Your task to perform on an android device: move a message to another label in the gmail app Image 0: 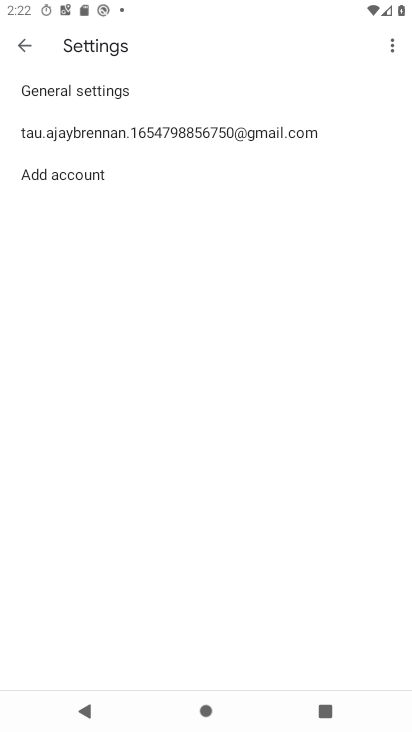
Step 0: press home button
Your task to perform on an android device: move a message to another label in the gmail app Image 1: 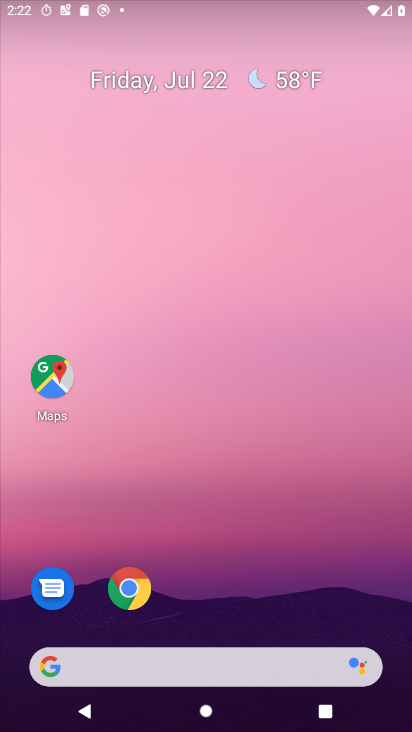
Step 1: drag from (209, 659) to (289, 76)
Your task to perform on an android device: move a message to another label in the gmail app Image 2: 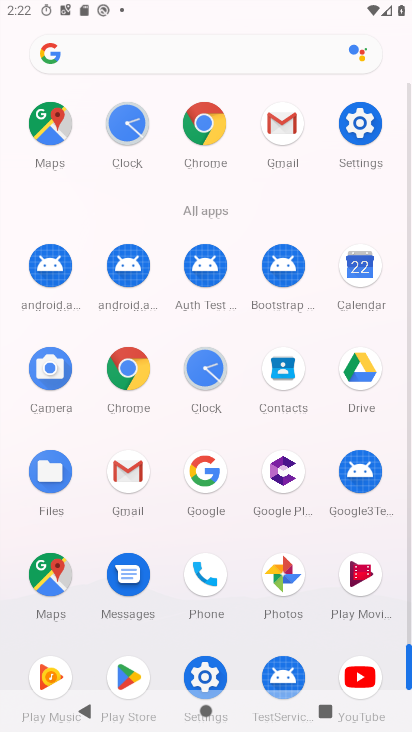
Step 2: click (287, 139)
Your task to perform on an android device: move a message to another label in the gmail app Image 3: 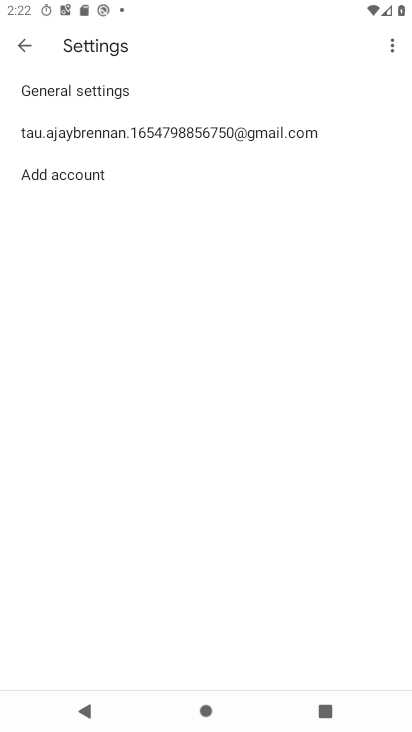
Step 3: click (115, 131)
Your task to perform on an android device: move a message to another label in the gmail app Image 4: 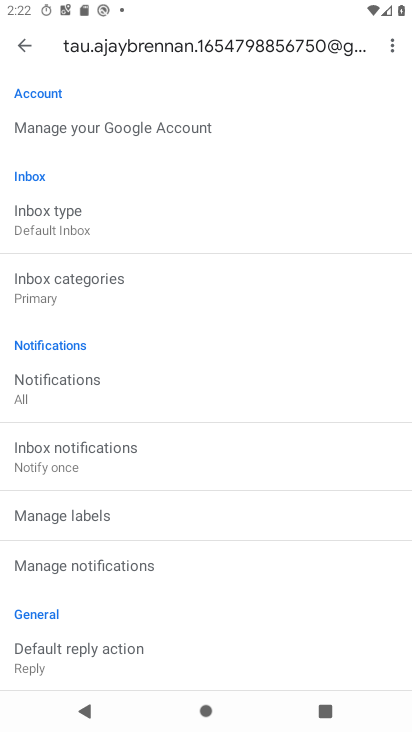
Step 4: click (22, 43)
Your task to perform on an android device: move a message to another label in the gmail app Image 5: 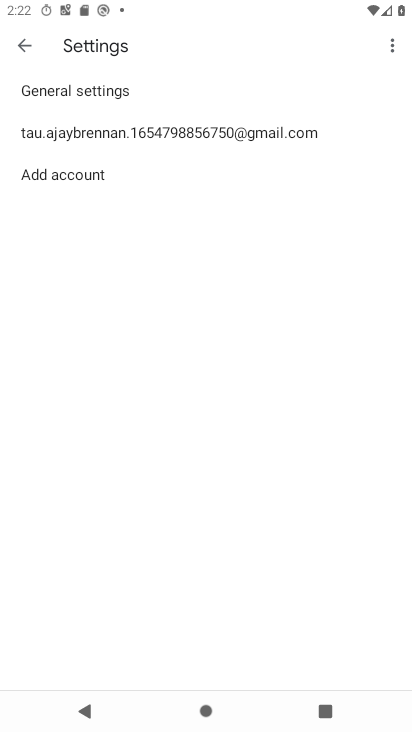
Step 5: click (22, 43)
Your task to perform on an android device: move a message to another label in the gmail app Image 6: 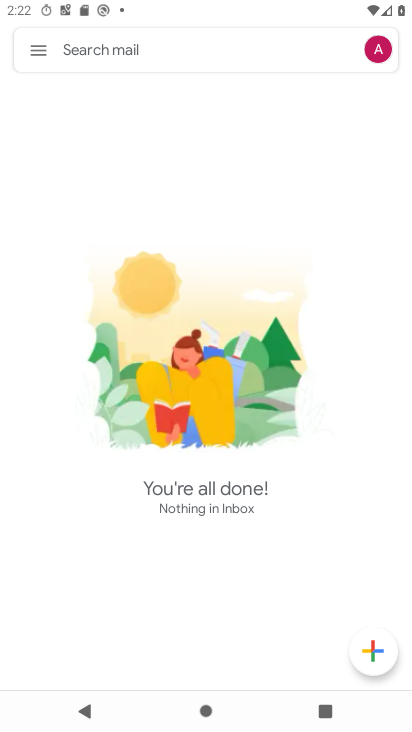
Step 6: task complete